Your task to perform on an android device: Open Chrome and go to the settings page Image 0: 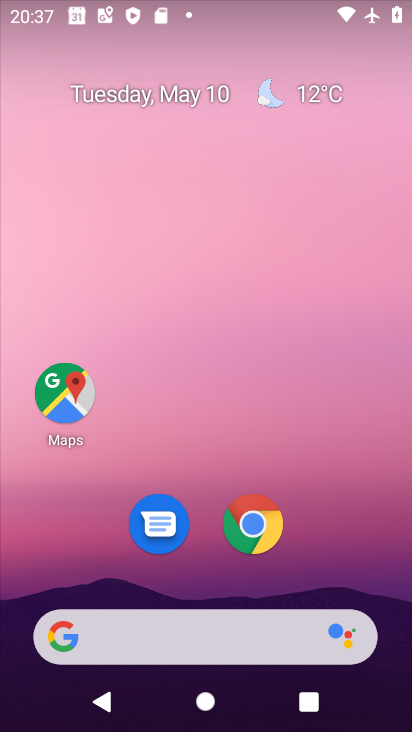
Step 0: click (266, 523)
Your task to perform on an android device: Open Chrome and go to the settings page Image 1: 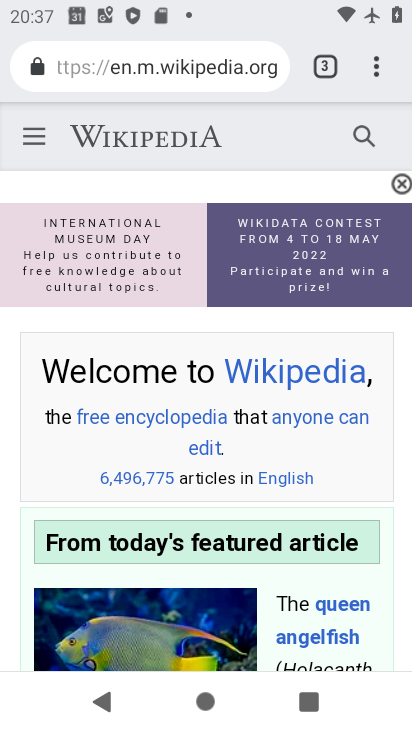
Step 1: click (374, 66)
Your task to perform on an android device: Open Chrome and go to the settings page Image 2: 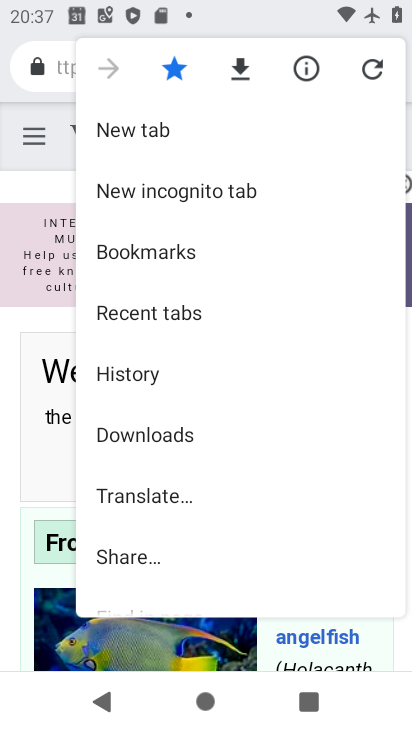
Step 2: drag from (259, 423) to (274, 125)
Your task to perform on an android device: Open Chrome and go to the settings page Image 3: 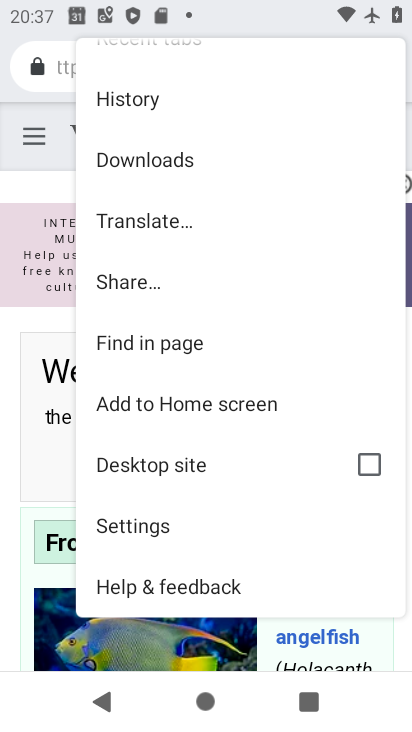
Step 3: click (177, 518)
Your task to perform on an android device: Open Chrome and go to the settings page Image 4: 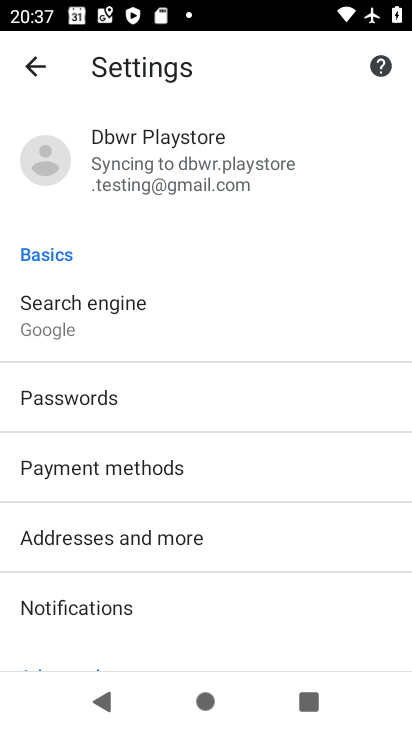
Step 4: task complete